Your task to perform on an android device: turn pop-ups off in chrome Image 0: 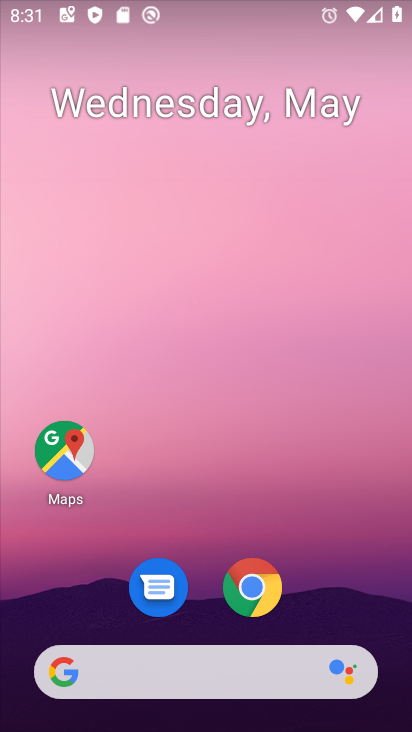
Step 0: click (266, 583)
Your task to perform on an android device: turn pop-ups off in chrome Image 1: 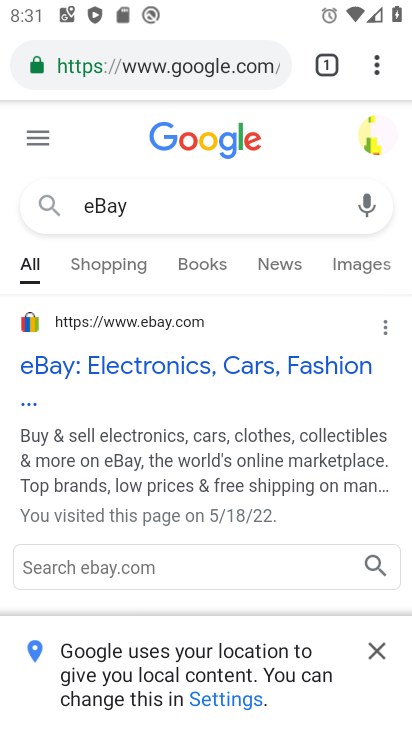
Step 1: click (375, 60)
Your task to perform on an android device: turn pop-ups off in chrome Image 2: 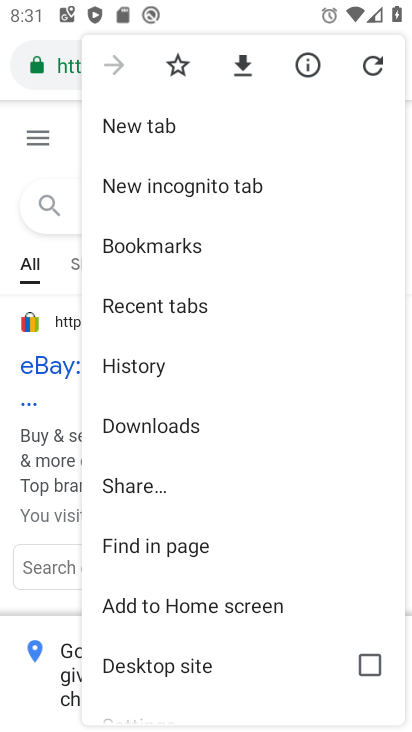
Step 2: drag from (163, 622) to (219, 277)
Your task to perform on an android device: turn pop-ups off in chrome Image 3: 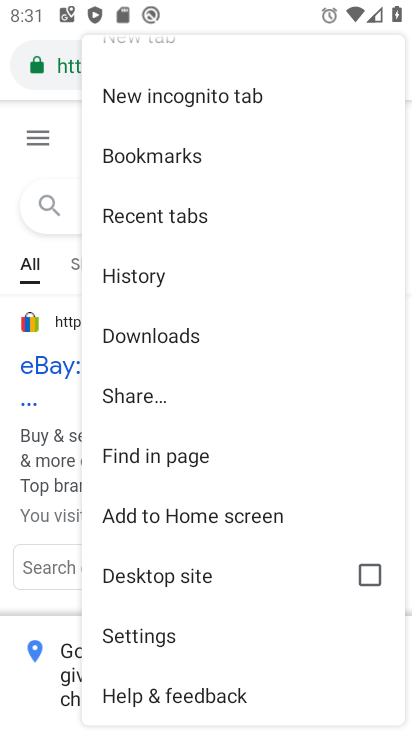
Step 3: click (154, 640)
Your task to perform on an android device: turn pop-ups off in chrome Image 4: 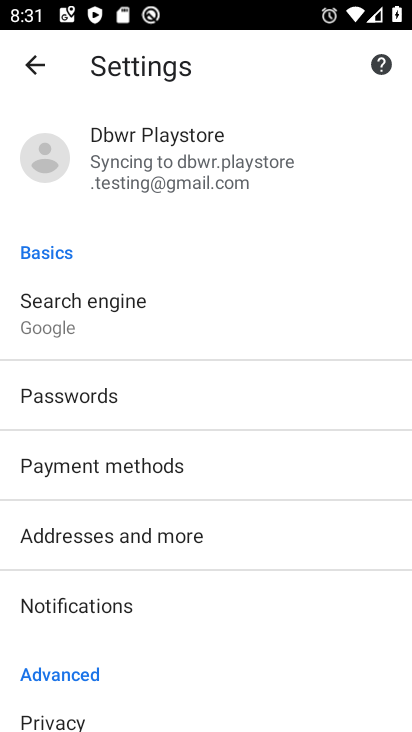
Step 4: drag from (120, 589) to (189, 291)
Your task to perform on an android device: turn pop-ups off in chrome Image 5: 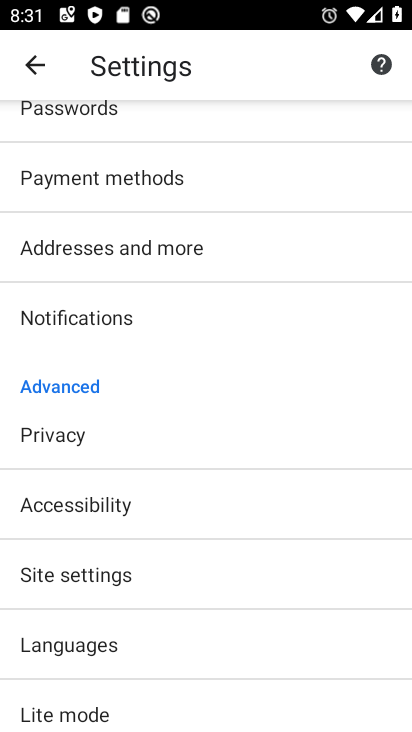
Step 5: click (85, 576)
Your task to perform on an android device: turn pop-ups off in chrome Image 6: 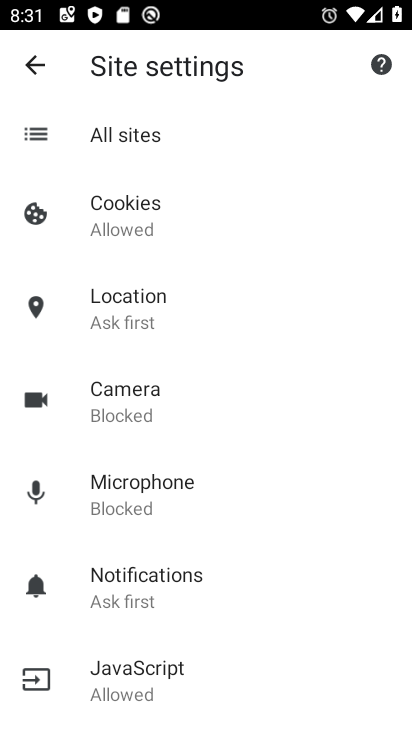
Step 6: drag from (134, 614) to (200, 340)
Your task to perform on an android device: turn pop-ups off in chrome Image 7: 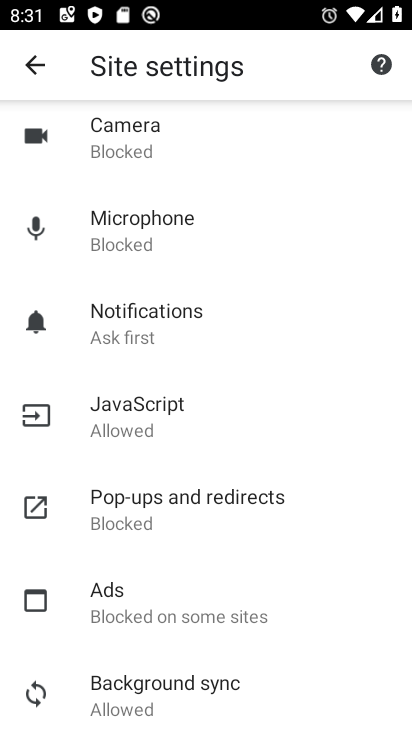
Step 7: click (129, 513)
Your task to perform on an android device: turn pop-ups off in chrome Image 8: 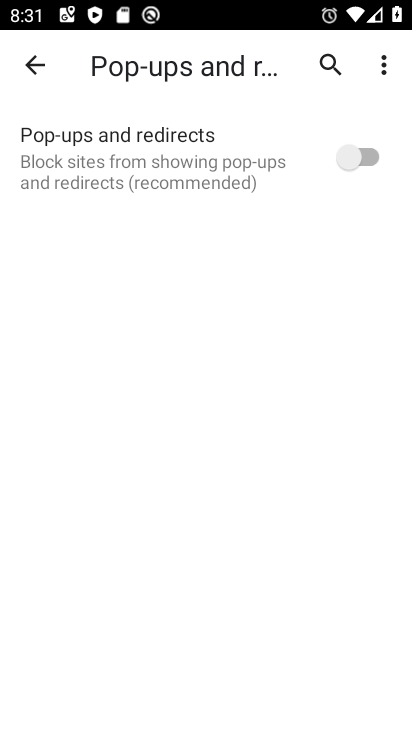
Step 8: task complete